Your task to perform on an android device: Open the web browser Image 0: 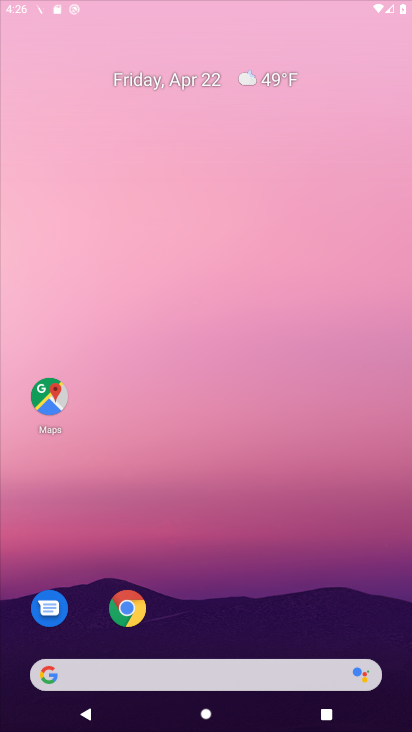
Step 0: drag from (248, 398) to (260, 203)
Your task to perform on an android device: Open the web browser Image 1: 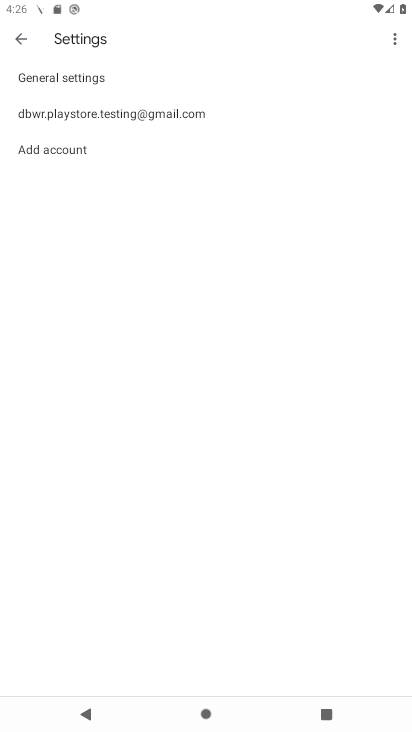
Step 1: press home button
Your task to perform on an android device: Open the web browser Image 2: 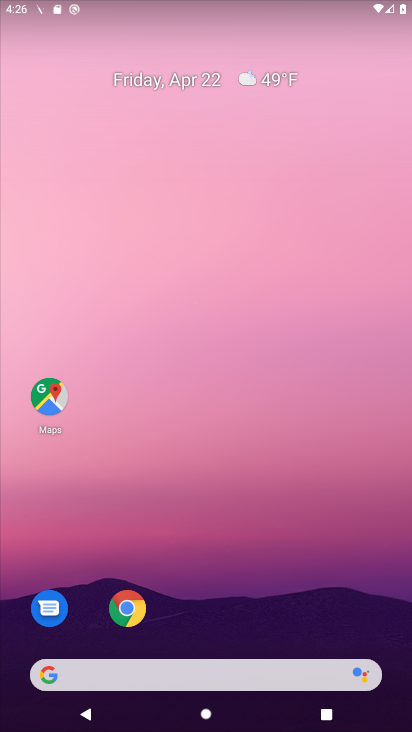
Step 2: drag from (268, 643) to (334, 79)
Your task to perform on an android device: Open the web browser Image 3: 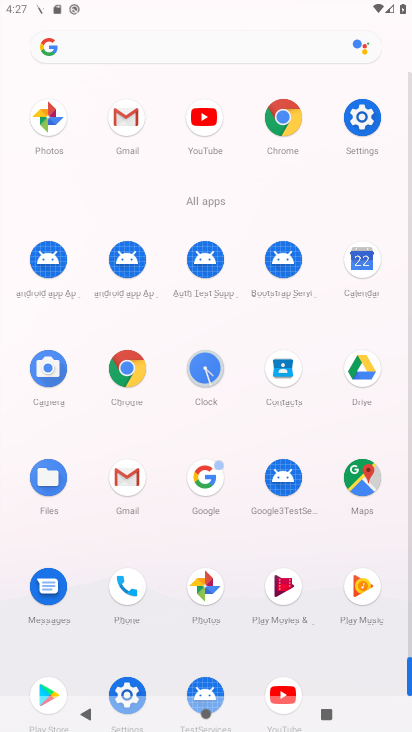
Step 3: click (286, 156)
Your task to perform on an android device: Open the web browser Image 4: 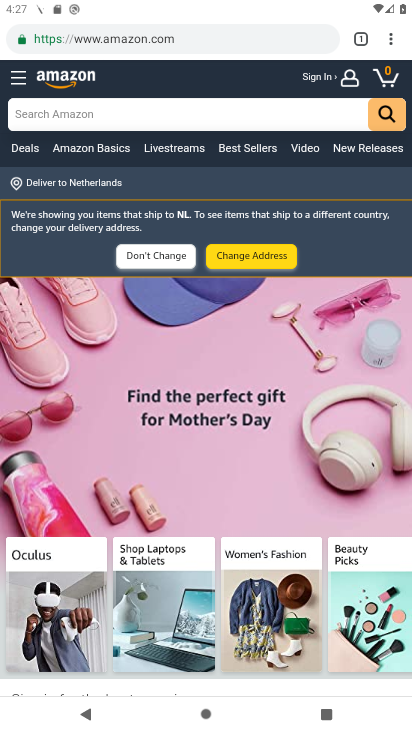
Step 4: task complete